Your task to perform on an android device: What is the recent news? Image 0: 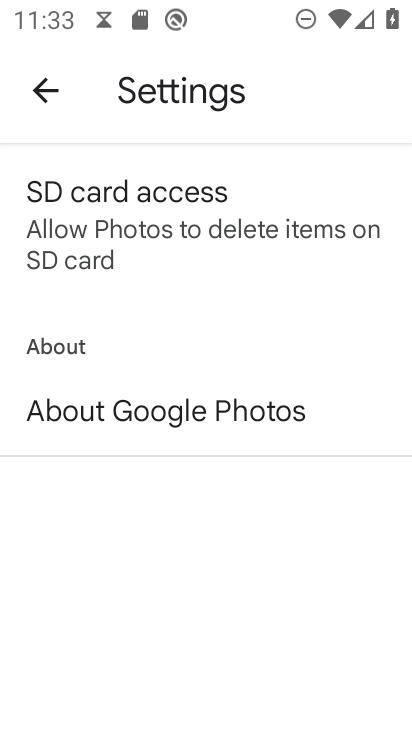
Step 0: press home button
Your task to perform on an android device: What is the recent news? Image 1: 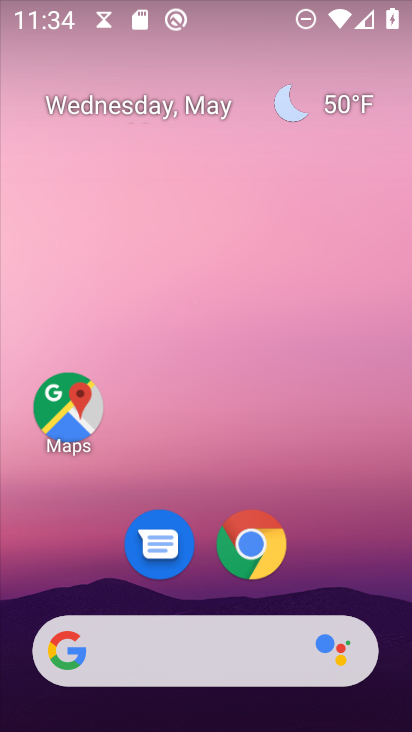
Step 1: click (180, 642)
Your task to perform on an android device: What is the recent news? Image 2: 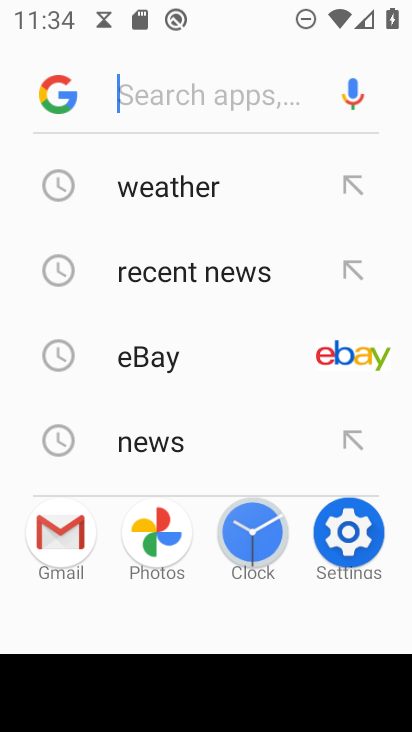
Step 2: click (231, 251)
Your task to perform on an android device: What is the recent news? Image 3: 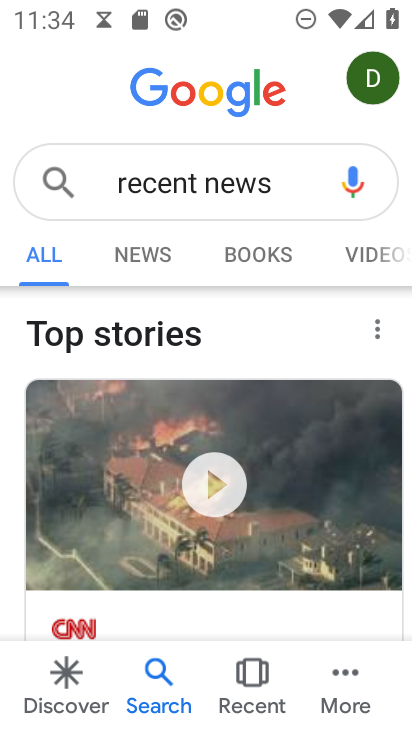
Step 3: task complete